Your task to perform on an android device: What's the weather going to be this weekend? Image 0: 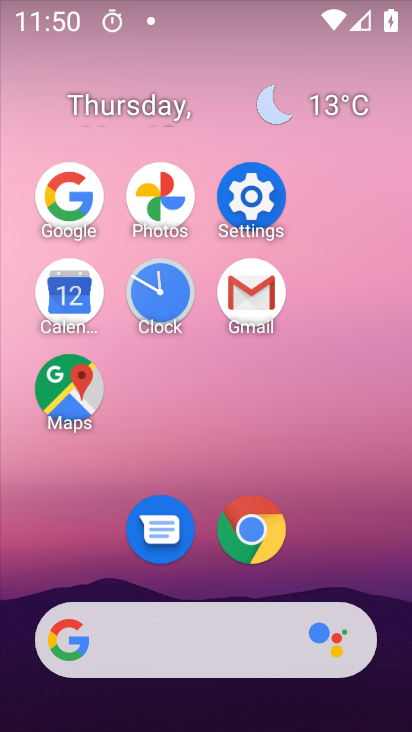
Step 0: click (69, 198)
Your task to perform on an android device: What's the weather going to be this weekend? Image 1: 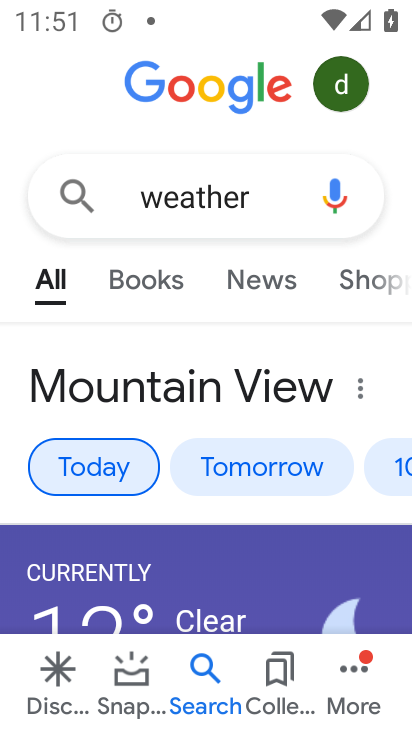
Step 1: click (250, 479)
Your task to perform on an android device: What's the weather going to be this weekend? Image 2: 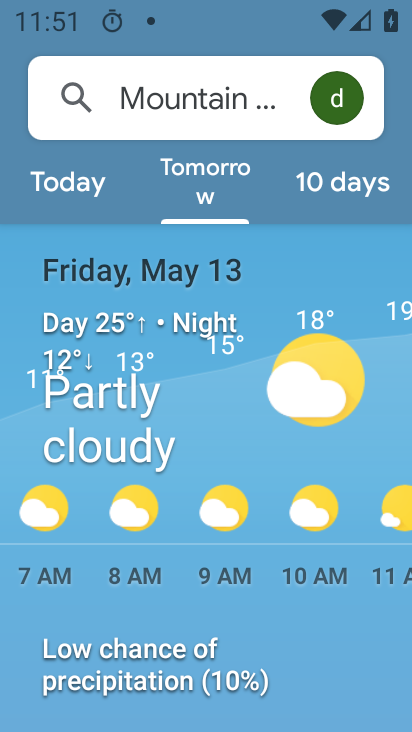
Step 2: task complete